Your task to perform on an android device: toggle airplane mode Image 0: 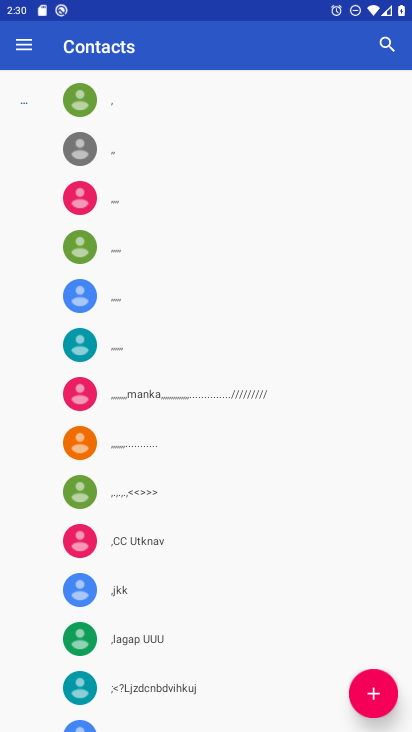
Step 0: press home button
Your task to perform on an android device: toggle airplane mode Image 1: 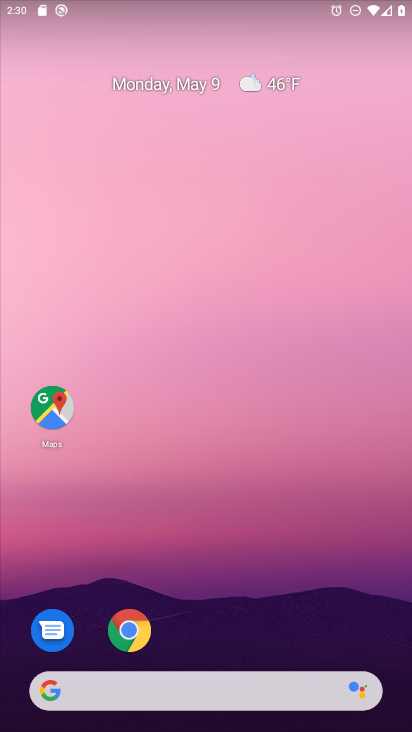
Step 1: drag from (285, 695) to (249, 388)
Your task to perform on an android device: toggle airplane mode Image 2: 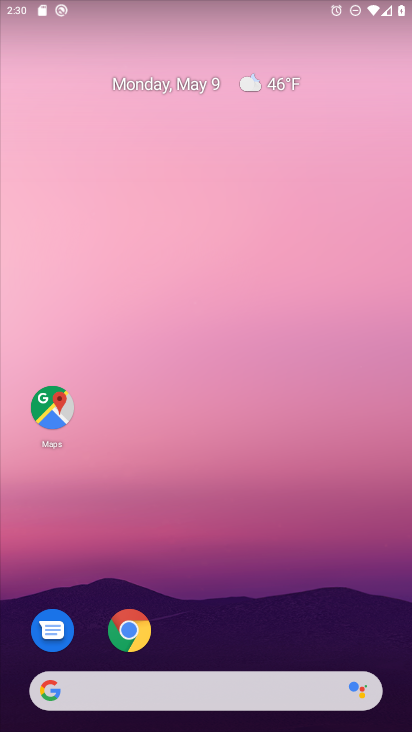
Step 2: drag from (263, 698) to (311, 269)
Your task to perform on an android device: toggle airplane mode Image 3: 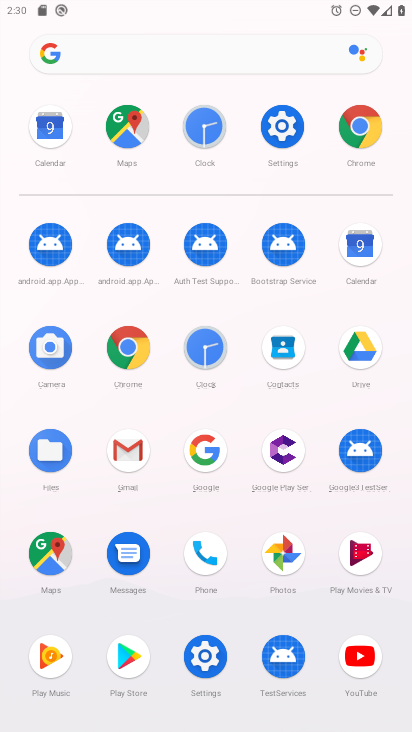
Step 3: click (280, 151)
Your task to perform on an android device: toggle airplane mode Image 4: 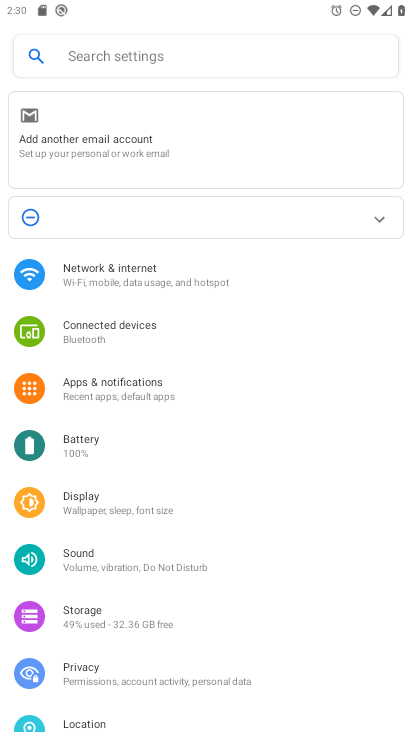
Step 4: click (136, 285)
Your task to perform on an android device: toggle airplane mode Image 5: 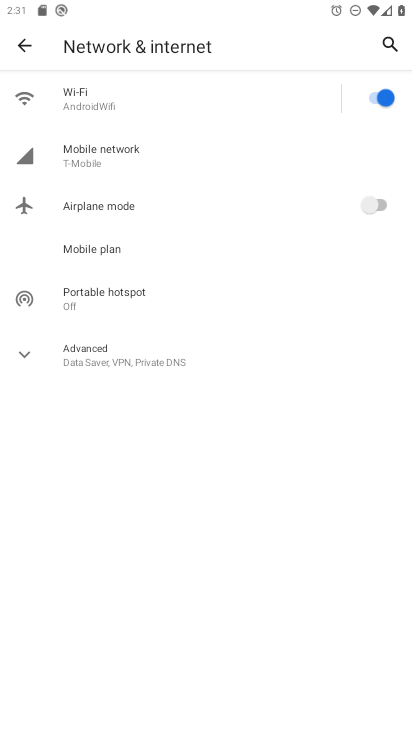
Step 5: click (156, 215)
Your task to perform on an android device: toggle airplane mode Image 6: 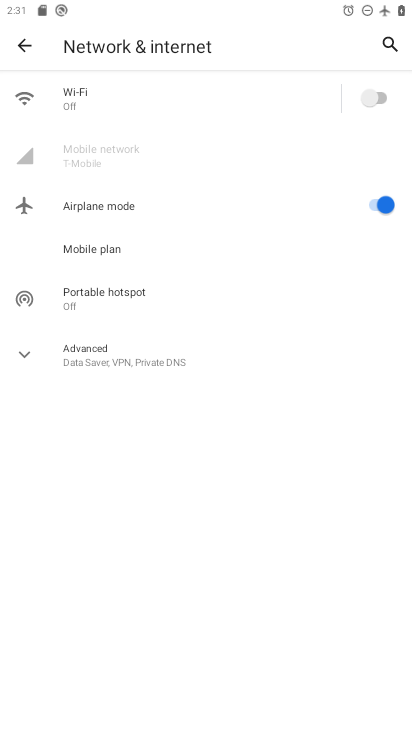
Step 6: click (156, 215)
Your task to perform on an android device: toggle airplane mode Image 7: 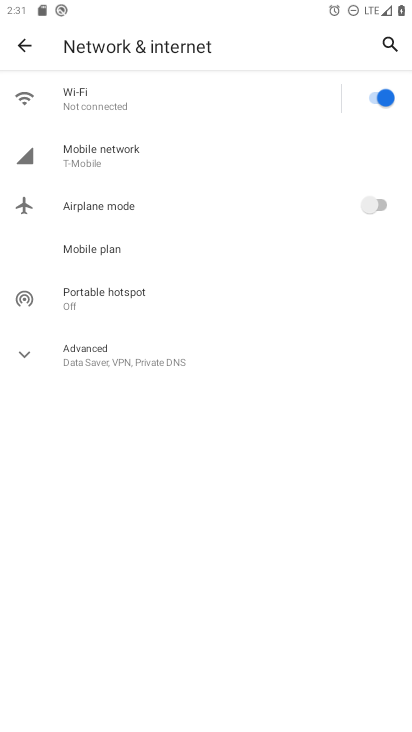
Step 7: task complete